Your task to perform on an android device: turn off picture-in-picture Image 0: 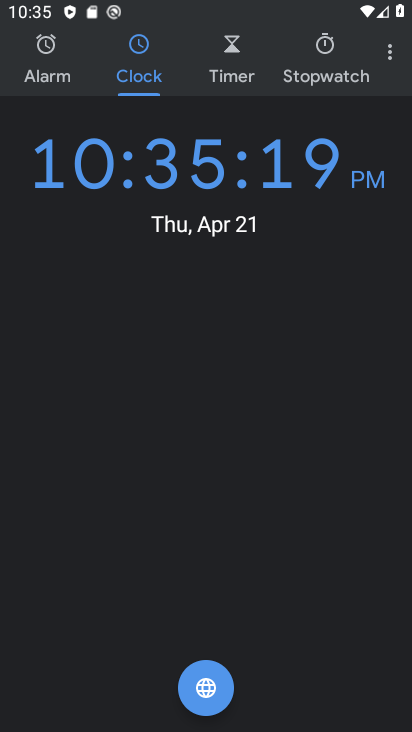
Step 0: press home button
Your task to perform on an android device: turn off picture-in-picture Image 1: 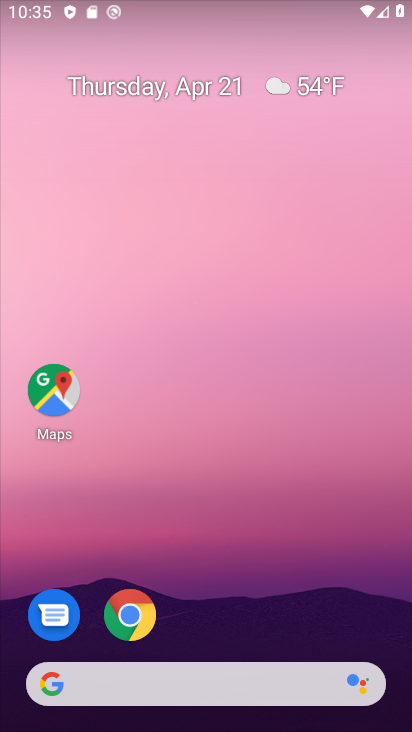
Step 1: click (129, 615)
Your task to perform on an android device: turn off picture-in-picture Image 2: 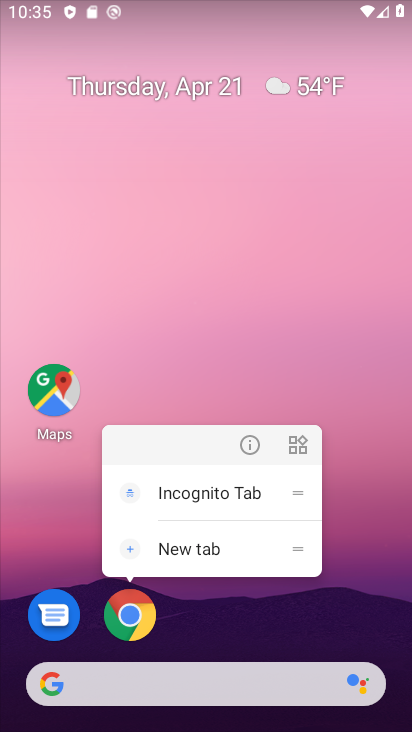
Step 2: click (250, 447)
Your task to perform on an android device: turn off picture-in-picture Image 3: 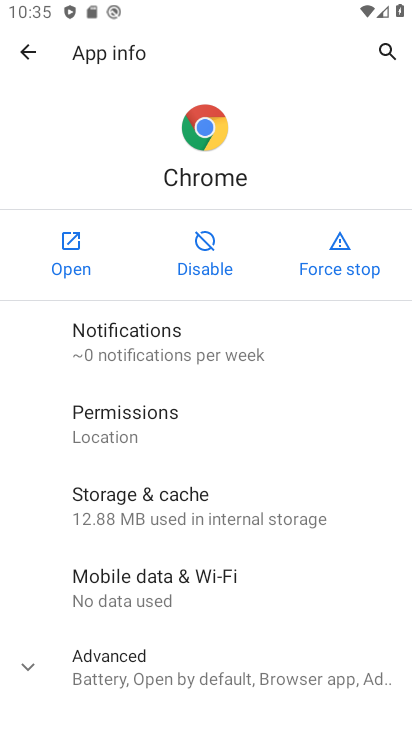
Step 3: click (213, 671)
Your task to perform on an android device: turn off picture-in-picture Image 4: 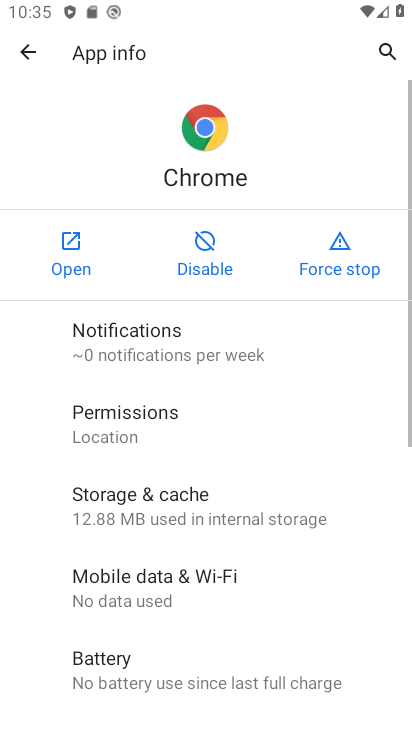
Step 4: drag from (213, 669) to (224, 597)
Your task to perform on an android device: turn off picture-in-picture Image 5: 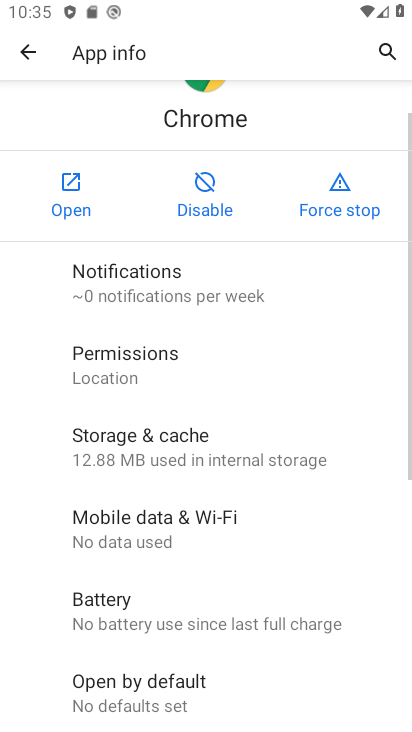
Step 5: drag from (227, 678) to (236, 599)
Your task to perform on an android device: turn off picture-in-picture Image 6: 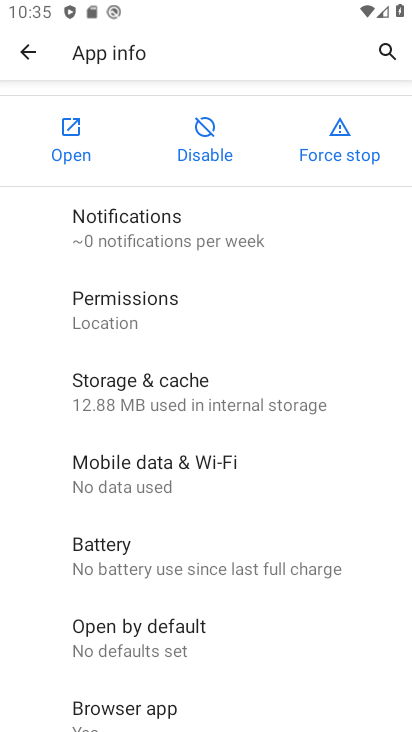
Step 6: drag from (214, 654) to (248, 561)
Your task to perform on an android device: turn off picture-in-picture Image 7: 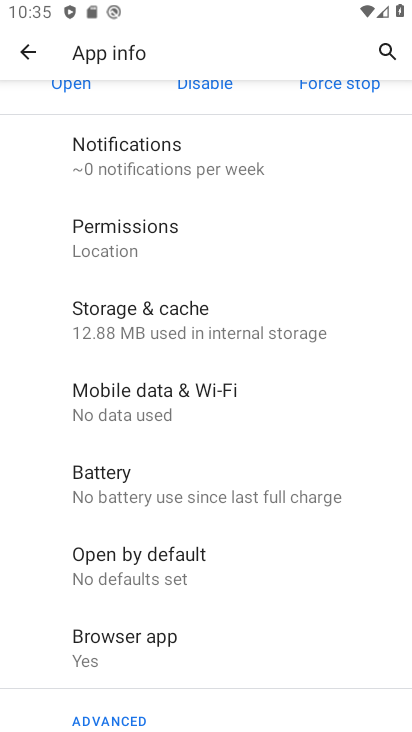
Step 7: drag from (251, 641) to (291, 547)
Your task to perform on an android device: turn off picture-in-picture Image 8: 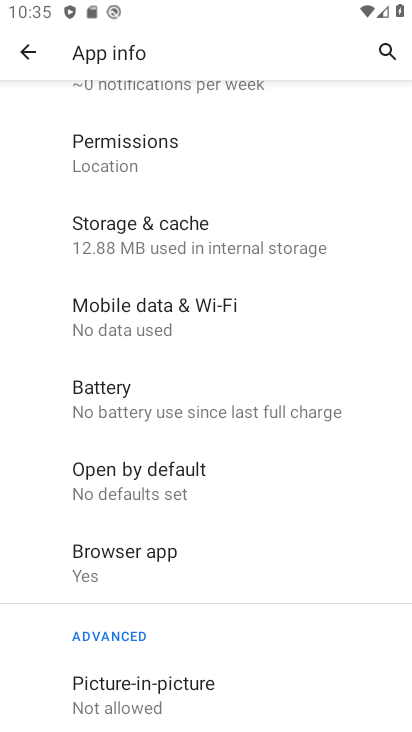
Step 8: drag from (273, 607) to (291, 518)
Your task to perform on an android device: turn off picture-in-picture Image 9: 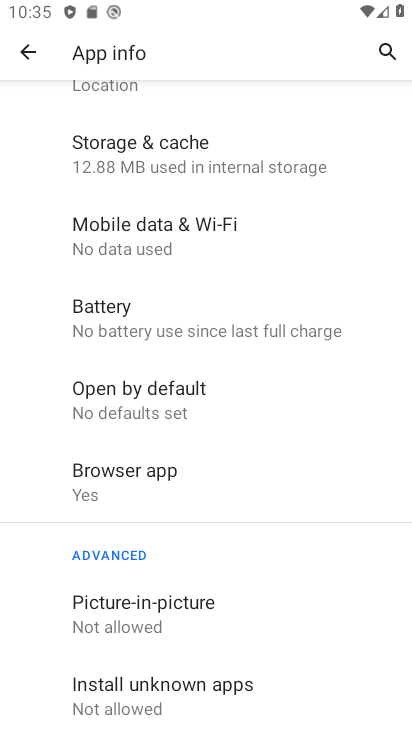
Step 9: click (243, 611)
Your task to perform on an android device: turn off picture-in-picture Image 10: 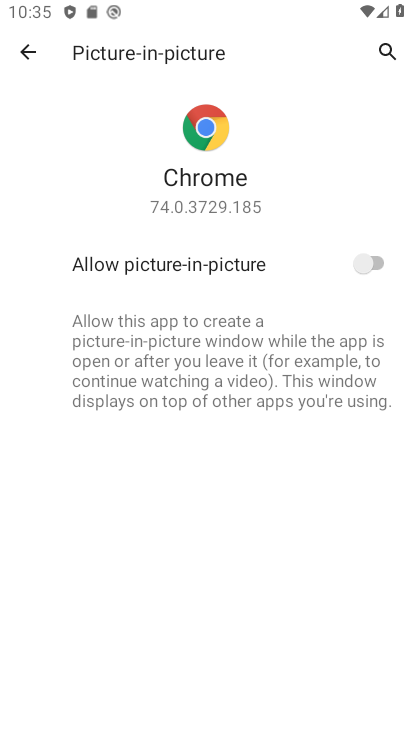
Step 10: task complete